Your task to perform on an android device: Open the web browser Image 0: 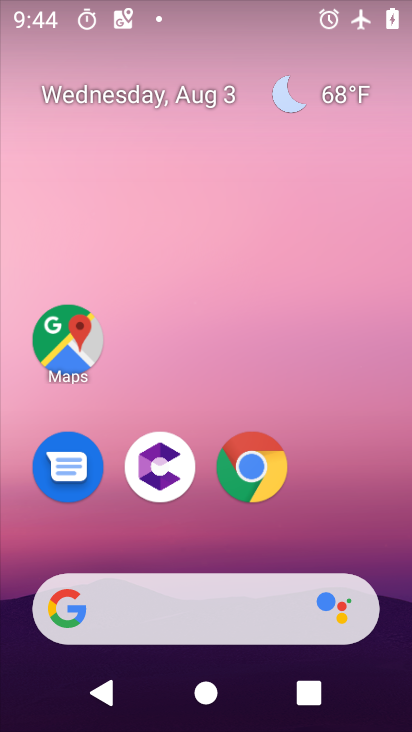
Step 0: drag from (378, 494) to (290, 37)
Your task to perform on an android device: Open the web browser Image 1: 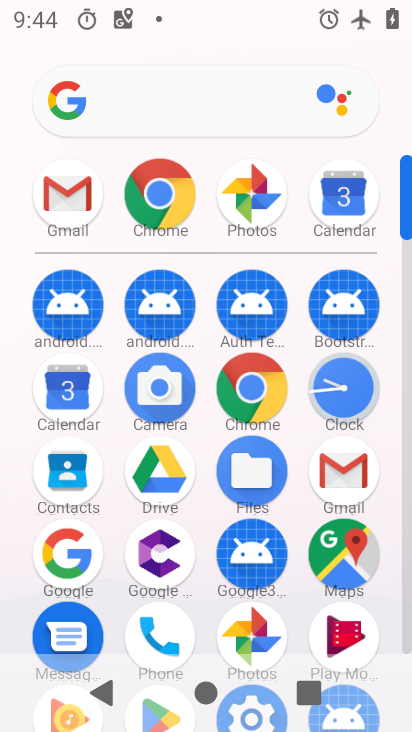
Step 1: click (246, 387)
Your task to perform on an android device: Open the web browser Image 2: 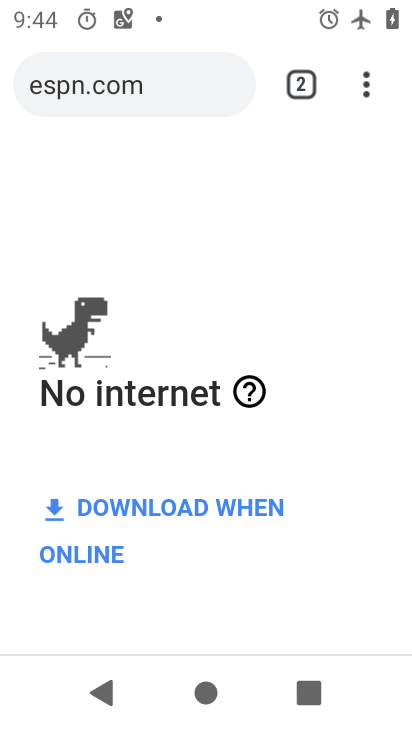
Step 2: task complete